Your task to perform on an android device: turn smart compose on in the gmail app Image 0: 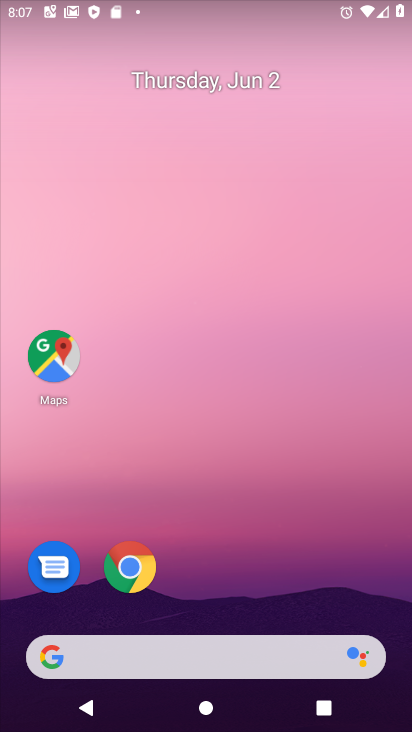
Step 0: drag from (262, 571) to (195, 210)
Your task to perform on an android device: turn smart compose on in the gmail app Image 1: 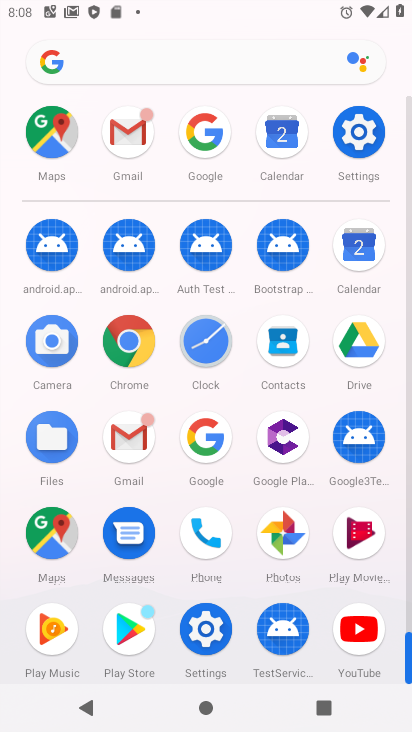
Step 1: click (124, 130)
Your task to perform on an android device: turn smart compose on in the gmail app Image 2: 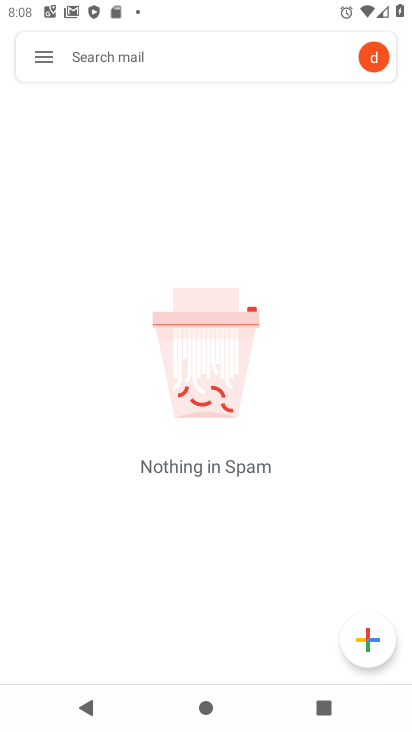
Step 2: click (43, 64)
Your task to perform on an android device: turn smart compose on in the gmail app Image 3: 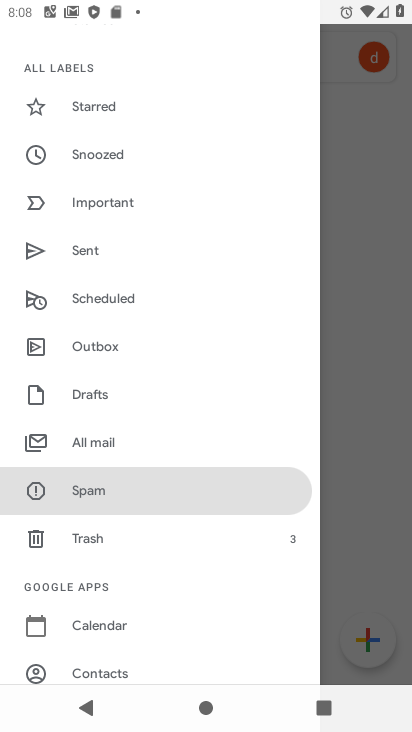
Step 3: drag from (115, 546) to (121, 497)
Your task to perform on an android device: turn smart compose on in the gmail app Image 4: 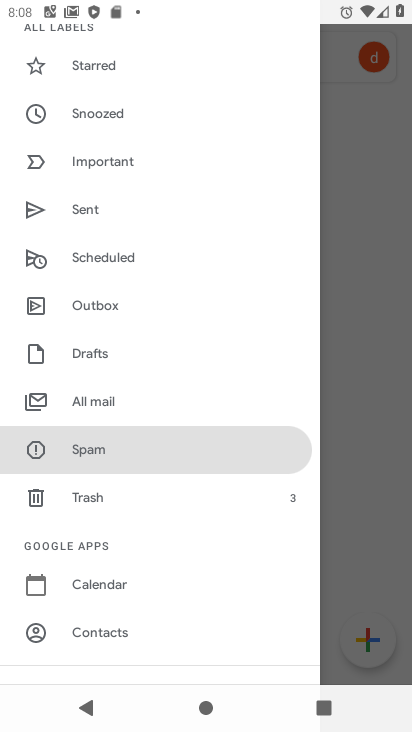
Step 4: drag from (82, 609) to (119, 550)
Your task to perform on an android device: turn smart compose on in the gmail app Image 5: 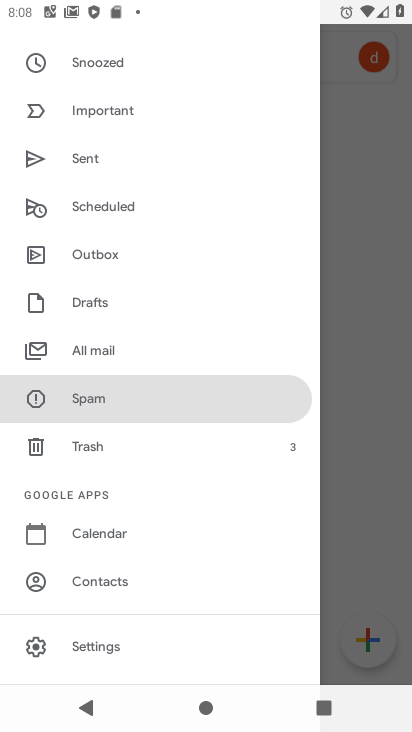
Step 5: drag from (110, 589) to (151, 515)
Your task to perform on an android device: turn smart compose on in the gmail app Image 6: 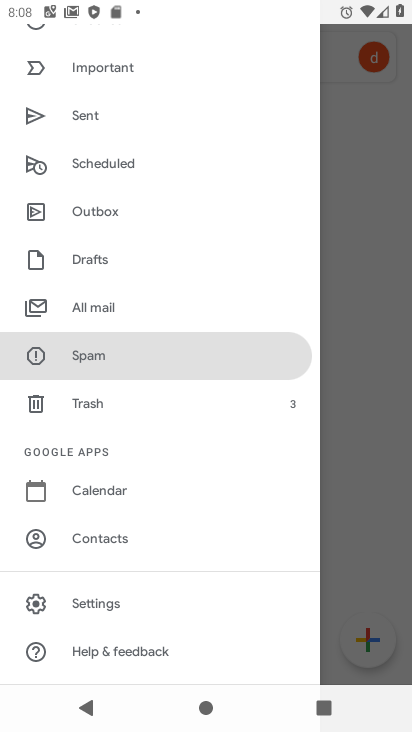
Step 6: click (112, 610)
Your task to perform on an android device: turn smart compose on in the gmail app Image 7: 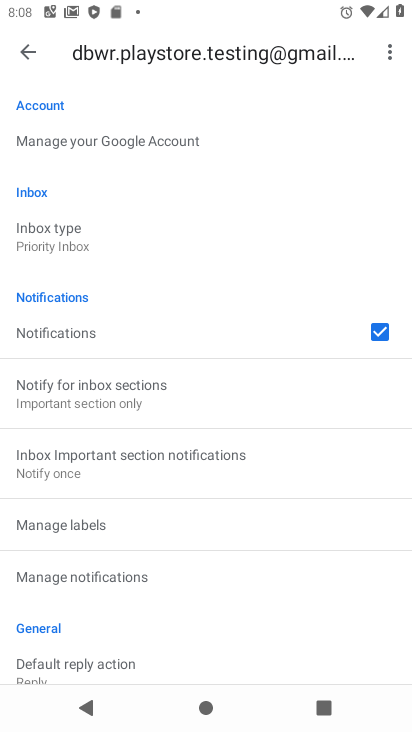
Step 7: task complete